Your task to perform on an android device: Search for hotels in New York Image 0: 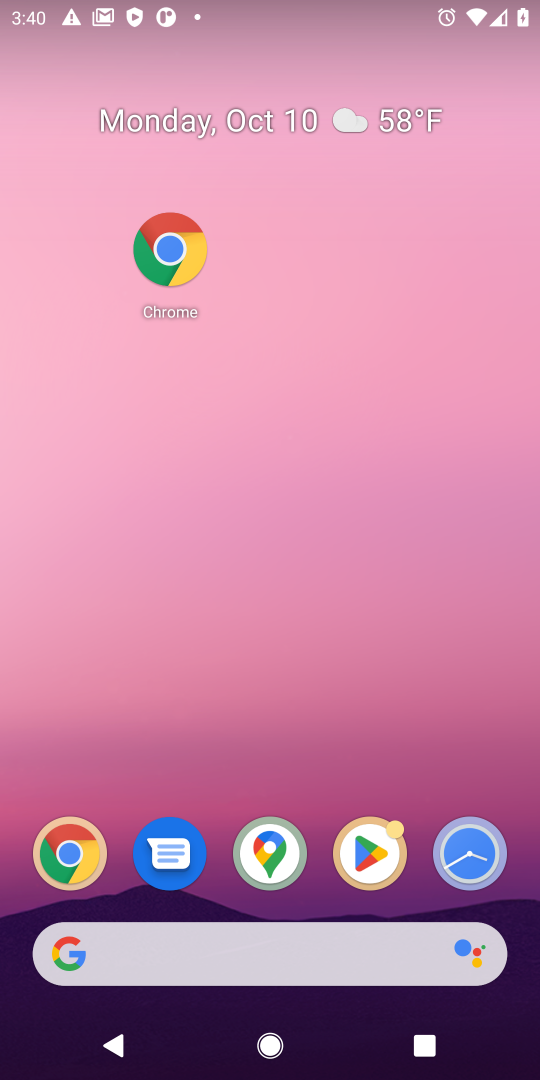
Step 0: click (165, 262)
Your task to perform on an android device: Search for hotels in New York Image 1: 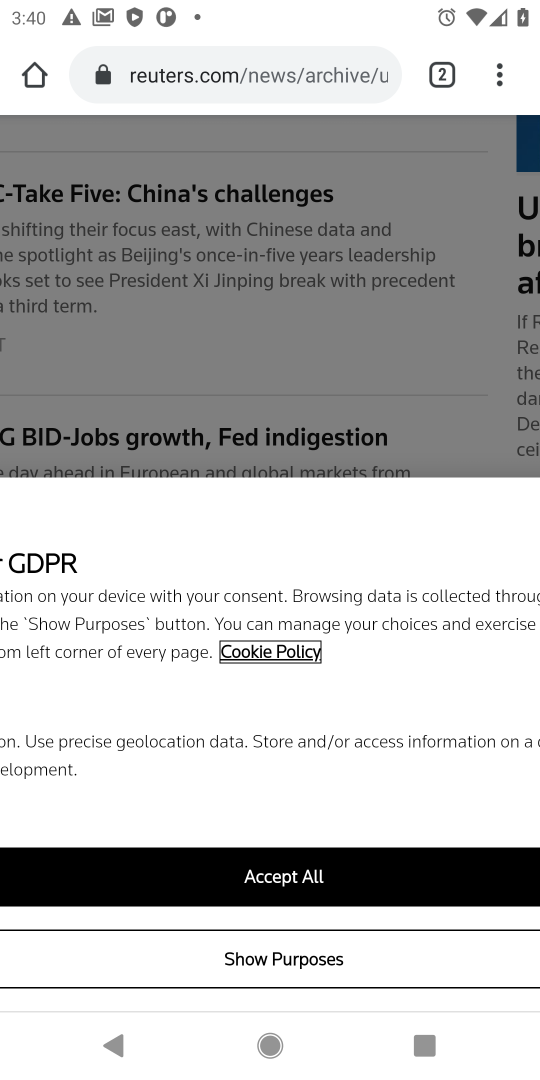
Step 1: click (223, 68)
Your task to perform on an android device: Search for hotels in New York Image 2: 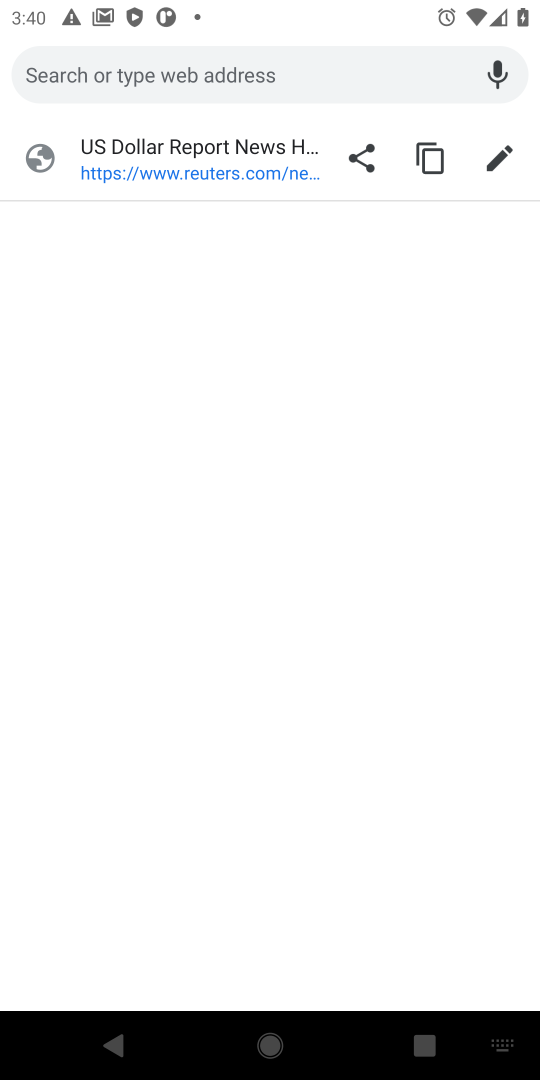
Step 2: type "hotels in New York"
Your task to perform on an android device: Search for hotels in New York Image 3: 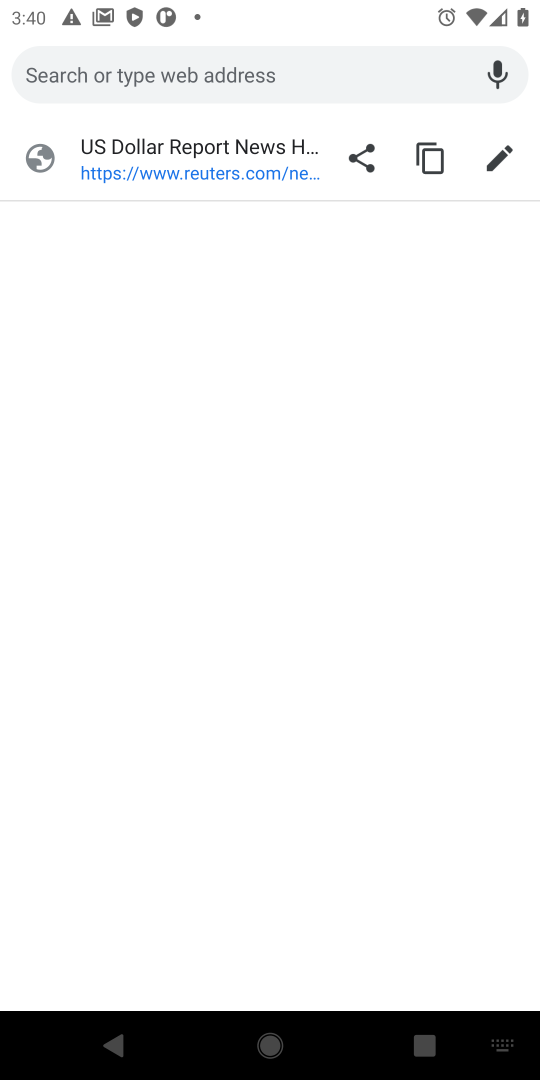
Step 3: click (263, 64)
Your task to perform on an android device: Search for hotels in New York Image 4: 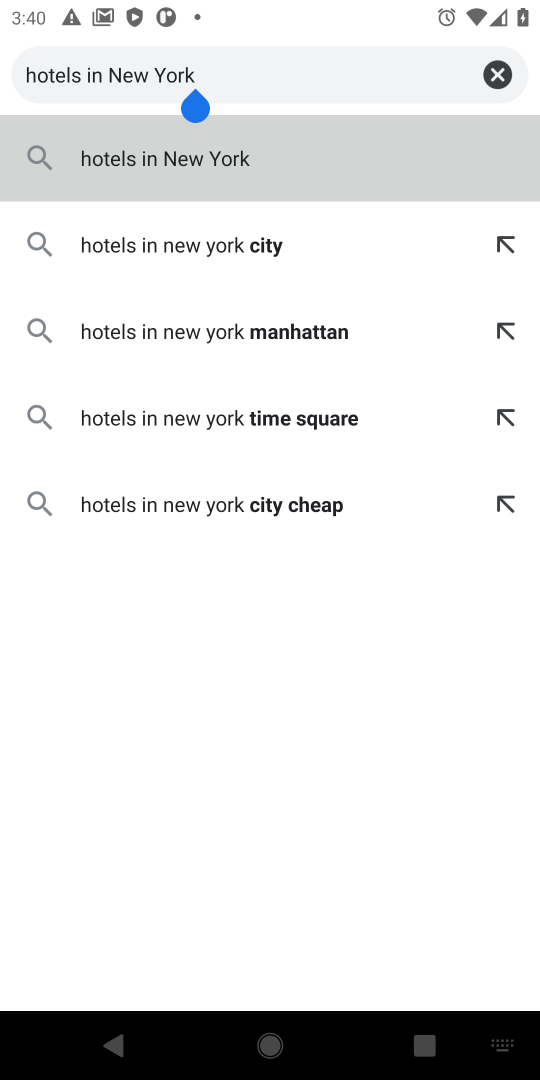
Step 4: click (223, 166)
Your task to perform on an android device: Search for hotels in New York Image 5: 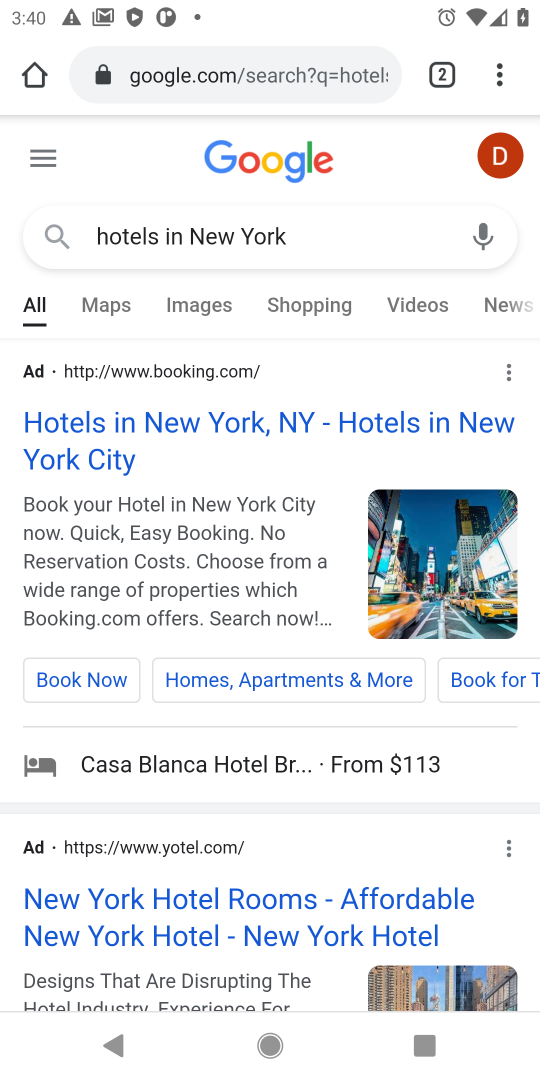
Step 5: click (189, 429)
Your task to perform on an android device: Search for hotels in New York Image 6: 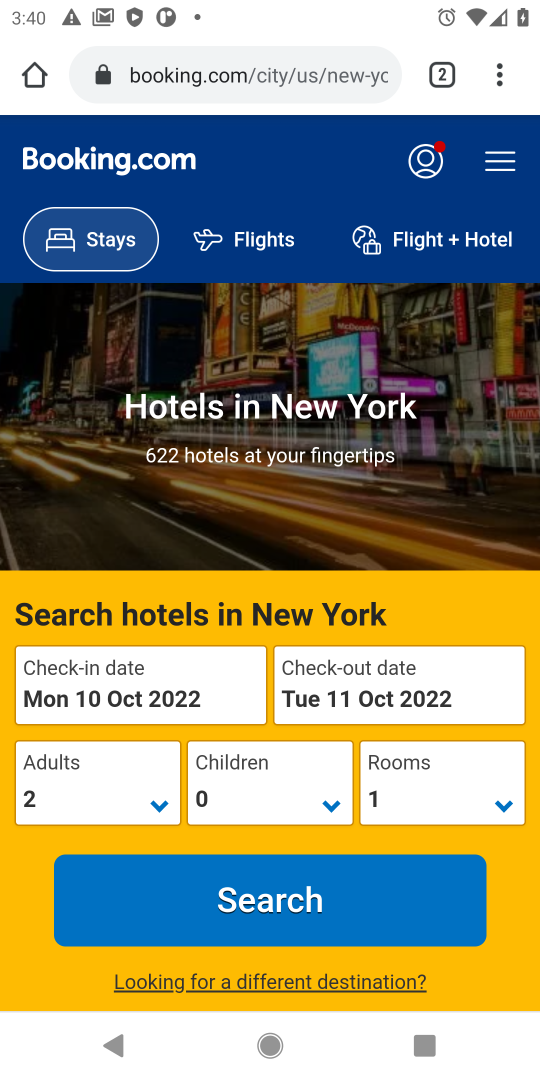
Step 6: click (294, 895)
Your task to perform on an android device: Search for hotels in New York Image 7: 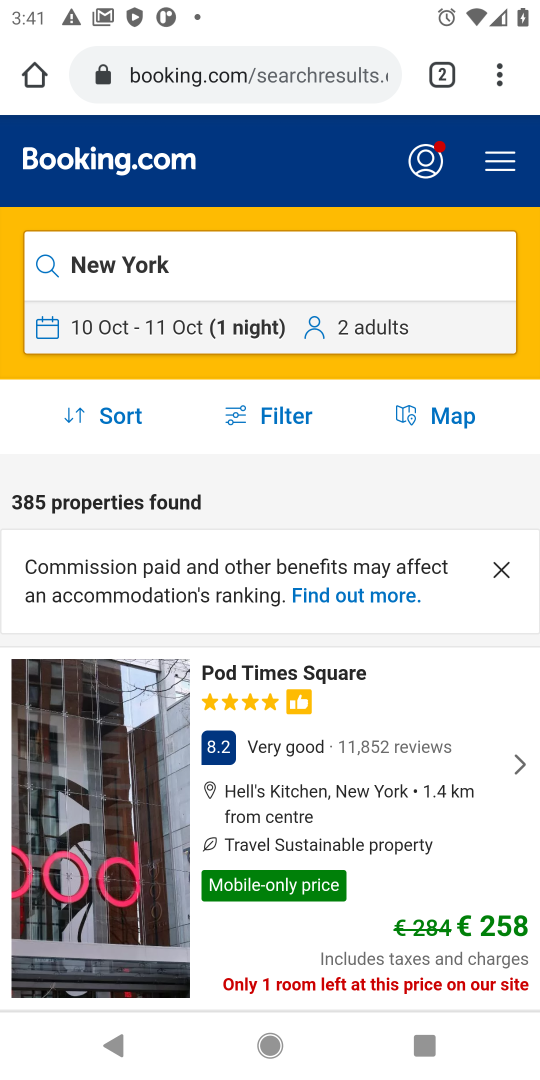
Step 7: task complete